Your task to perform on an android device: turn on airplane mode Image 0: 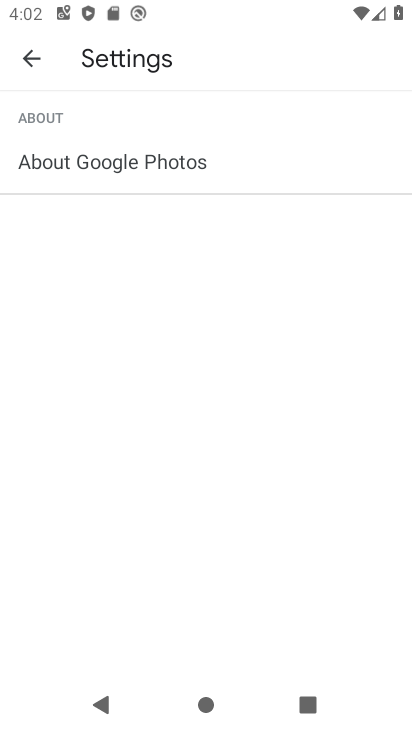
Step 0: press home button
Your task to perform on an android device: turn on airplane mode Image 1: 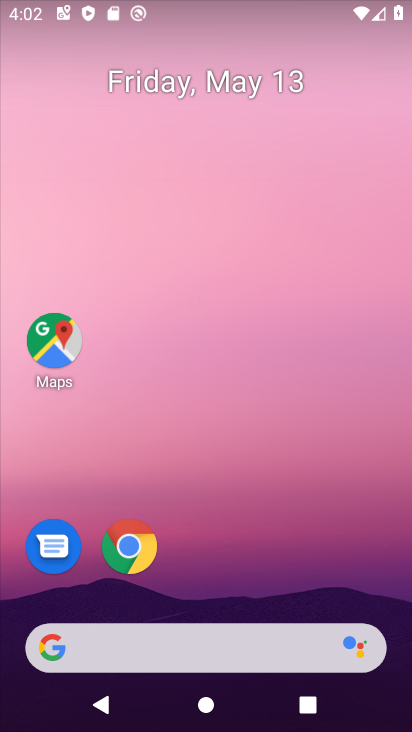
Step 1: drag from (221, 577) to (343, 0)
Your task to perform on an android device: turn on airplane mode Image 2: 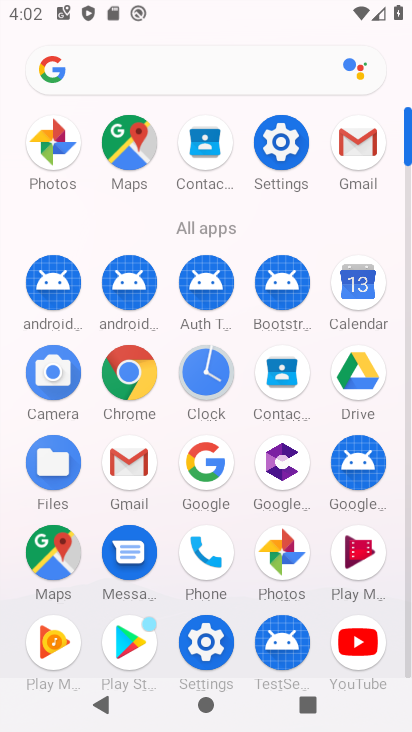
Step 2: click (277, 161)
Your task to perform on an android device: turn on airplane mode Image 3: 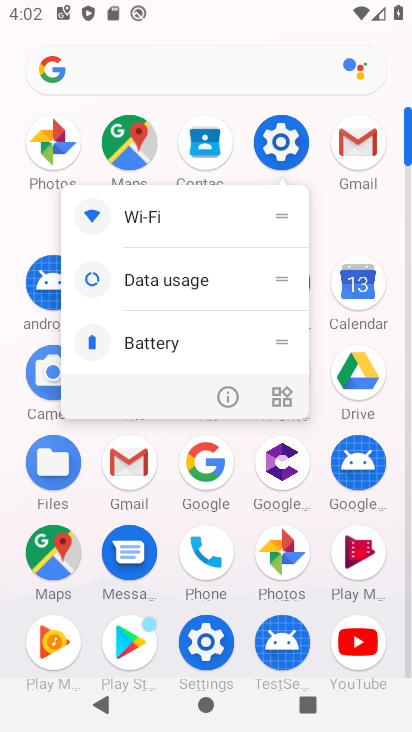
Step 3: click (286, 136)
Your task to perform on an android device: turn on airplane mode Image 4: 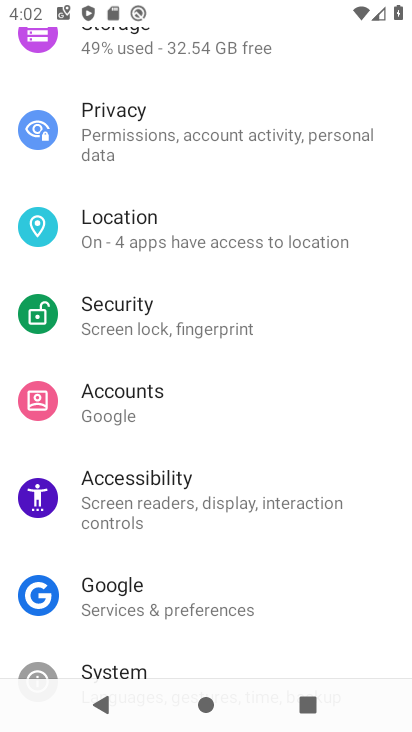
Step 4: drag from (202, 266) to (183, 730)
Your task to perform on an android device: turn on airplane mode Image 5: 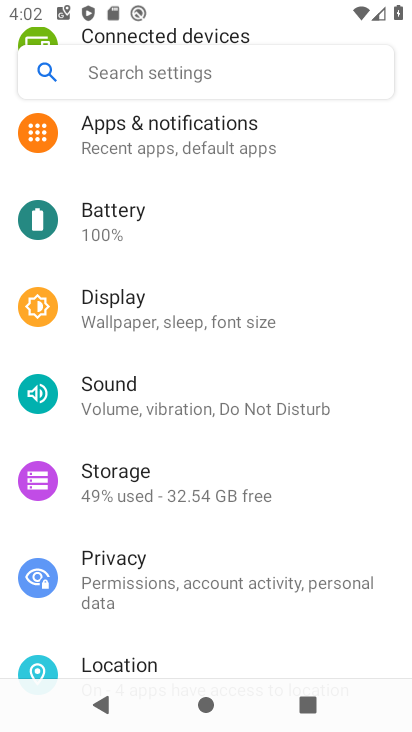
Step 5: drag from (195, 149) to (201, 607)
Your task to perform on an android device: turn on airplane mode Image 6: 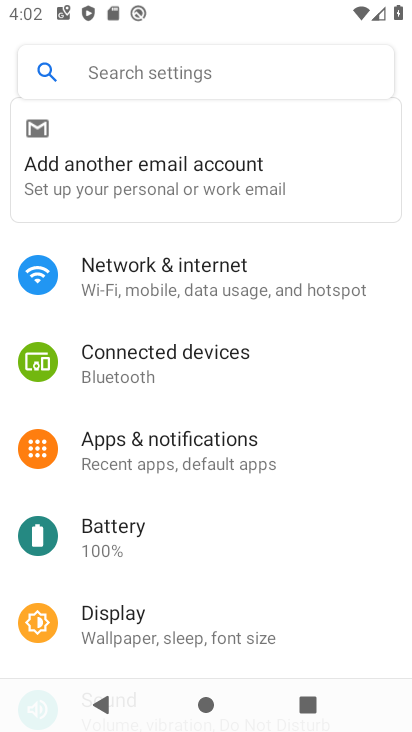
Step 6: click (188, 272)
Your task to perform on an android device: turn on airplane mode Image 7: 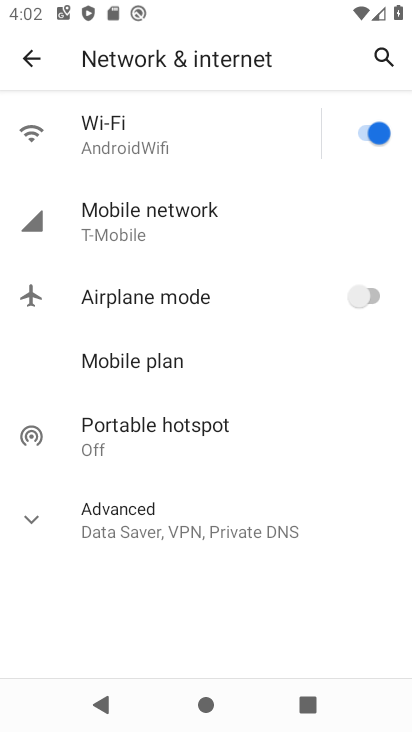
Step 7: click (188, 275)
Your task to perform on an android device: turn on airplane mode Image 8: 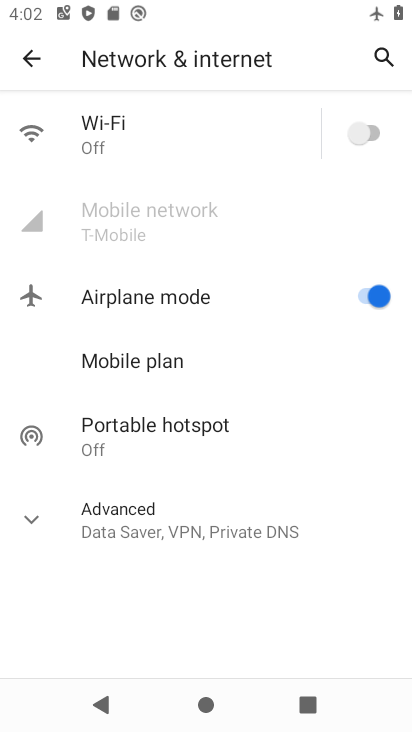
Step 8: click (355, 301)
Your task to perform on an android device: turn on airplane mode Image 9: 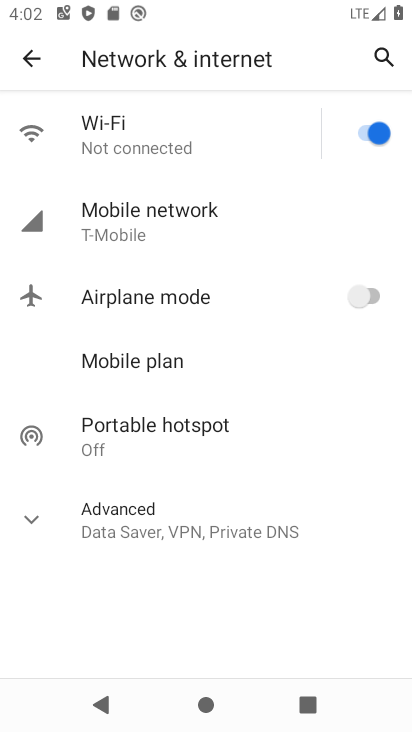
Step 9: task complete